Your task to perform on an android device: Clear the cart on walmart. Search for "razer nari" on walmart, select the first entry, add it to the cart, then select checkout. Image 0: 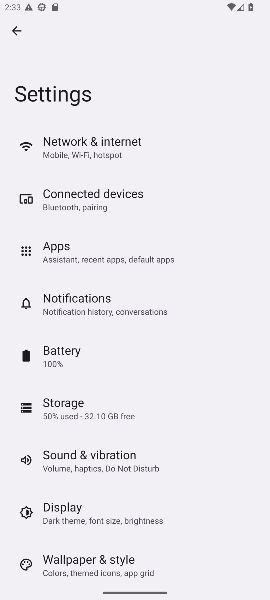
Step 0: press home button
Your task to perform on an android device: Clear the cart on walmart. Search for "razer nari" on walmart, select the first entry, add it to the cart, then select checkout. Image 1: 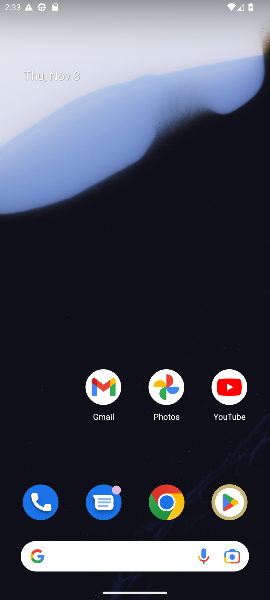
Step 1: drag from (188, 520) to (224, 178)
Your task to perform on an android device: Clear the cart on walmart. Search for "razer nari" on walmart, select the first entry, add it to the cart, then select checkout. Image 2: 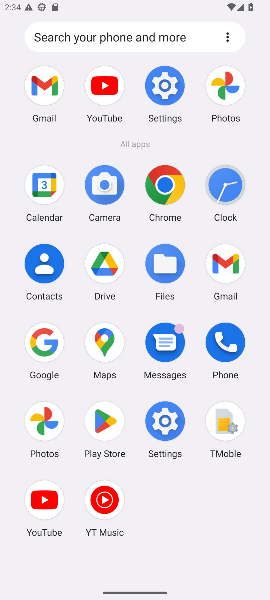
Step 2: click (45, 350)
Your task to perform on an android device: Clear the cart on walmart. Search for "razer nari" on walmart, select the first entry, add it to the cart, then select checkout. Image 3: 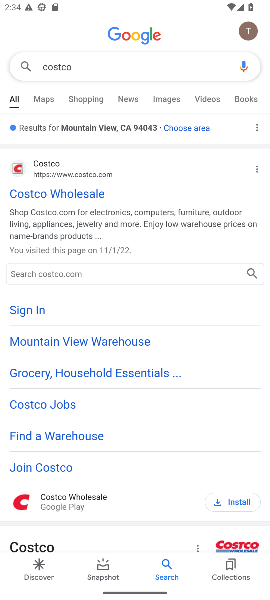
Step 3: click (157, 72)
Your task to perform on an android device: Clear the cart on walmart. Search for "razer nari" on walmart, select the first entry, add it to the cart, then select checkout. Image 4: 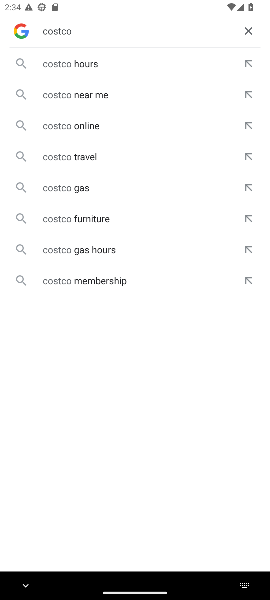
Step 4: click (249, 33)
Your task to perform on an android device: Clear the cart on walmart. Search for "razer nari" on walmart, select the first entry, add it to the cart, then select checkout. Image 5: 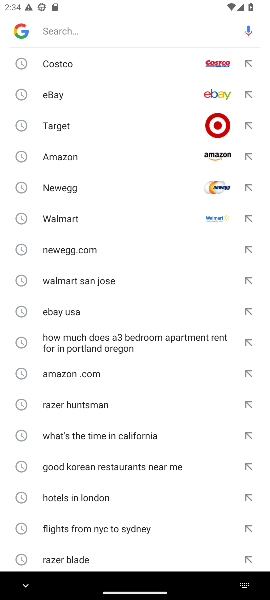
Step 5: type "walmart"
Your task to perform on an android device: Clear the cart on walmart. Search for "razer nari" on walmart, select the first entry, add it to the cart, then select checkout. Image 6: 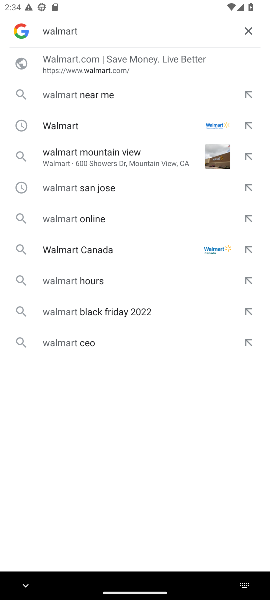
Step 6: click (69, 124)
Your task to perform on an android device: Clear the cart on walmart. Search for "razer nari" on walmart, select the first entry, add it to the cart, then select checkout. Image 7: 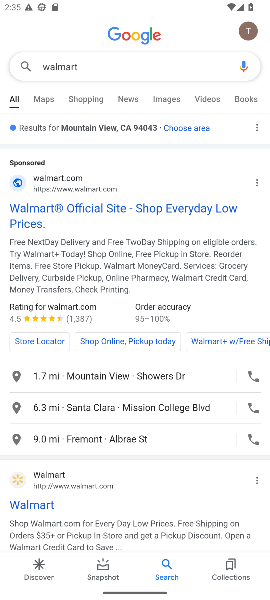
Step 7: click (109, 213)
Your task to perform on an android device: Clear the cart on walmart. Search for "razer nari" on walmart, select the first entry, add it to the cart, then select checkout. Image 8: 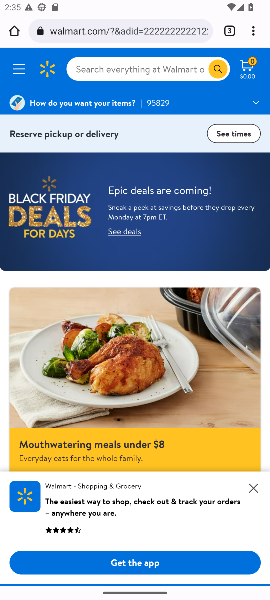
Step 8: click (138, 72)
Your task to perform on an android device: Clear the cart on walmart. Search for "razer nari" on walmart, select the first entry, add it to the cart, then select checkout. Image 9: 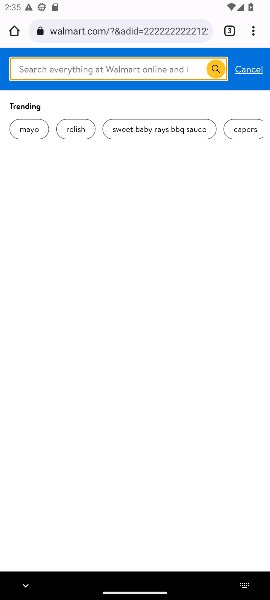
Step 9: type "razer nari"
Your task to perform on an android device: Clear the cart on walmart. Search for "razer nari" on walmart, select the first entry, add it to the cart, then select checkout. Image 10: 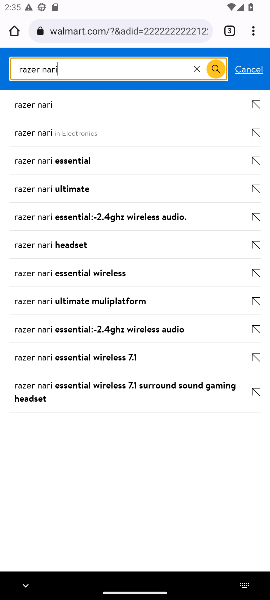
Step 10: click (179, 105)
Your task to perform on an android device: Clear the cart on walmart. Search for "razer nari" on walmart, select the first entry, add it to the cart, then select checkout. Image 11: 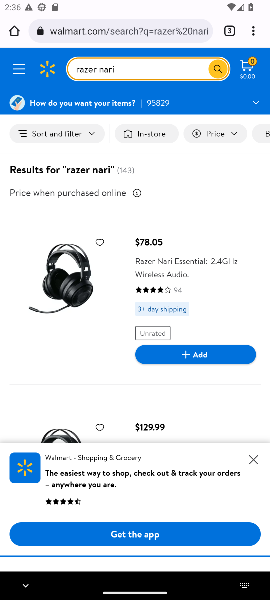
Step 11: click (213, 360)
Your task to perform on an android device: Clear the cart on walmart. Search for "razer nari" on walmart, select the first entry, add it to the cart, then select checkout. Image 12: 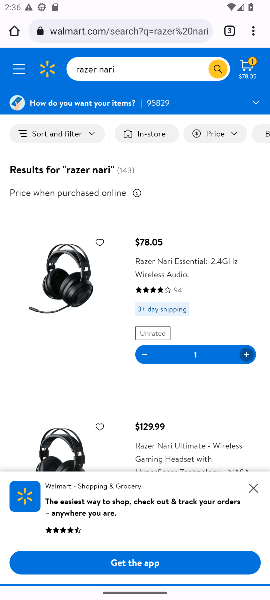
Step 12: click (261, 489)
Your task to perform on an android device: Clear the cart on walmart. Search for "razer nari" on walmart, select the first entry, add it to the cart, then select checkout. Image 13: 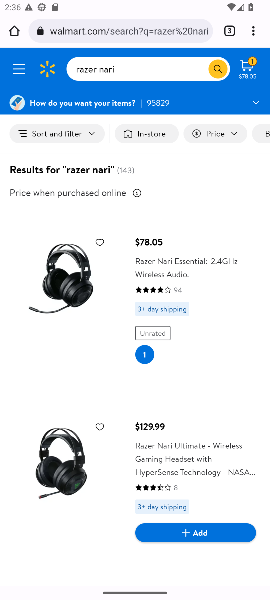
Step 13: click (248, 71)
Your task to perform on an android device: Clear the cart on walmart. Search for "razer nari" on walmart, select the first entry, add it to the cart, then select checkout. Image 14: 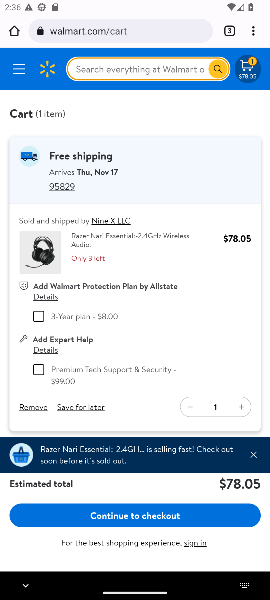
Step 14: click (152, 519)
Your task to perform on an android device: Clear the cart on walmart. Search for "razer nari" on walmart, select the first entry, add it to the cart, then select checkout. Image 15: 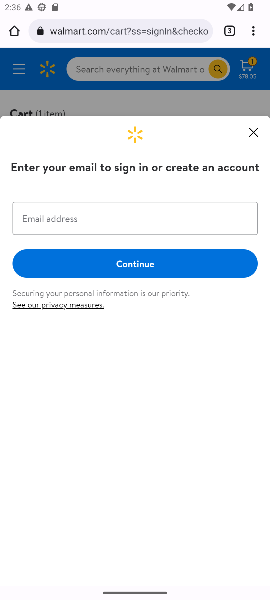
Step 15: task complete